Your task to perform on an android device: Go to Reddit.com Image 0: 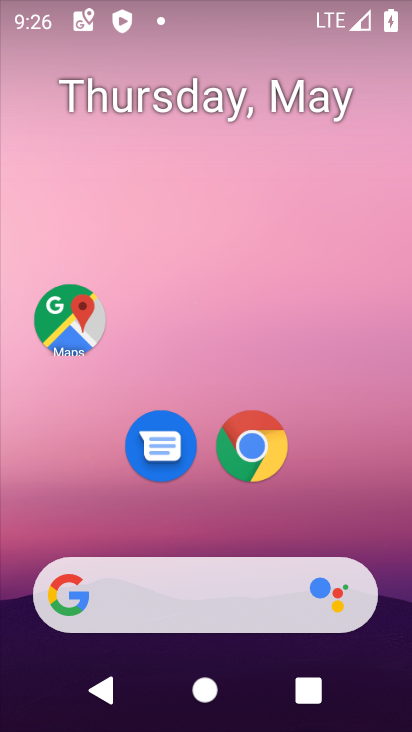
Step 0: click (254, 440)
Your task to perform on an android device: Go to Reddit.com Image 1: 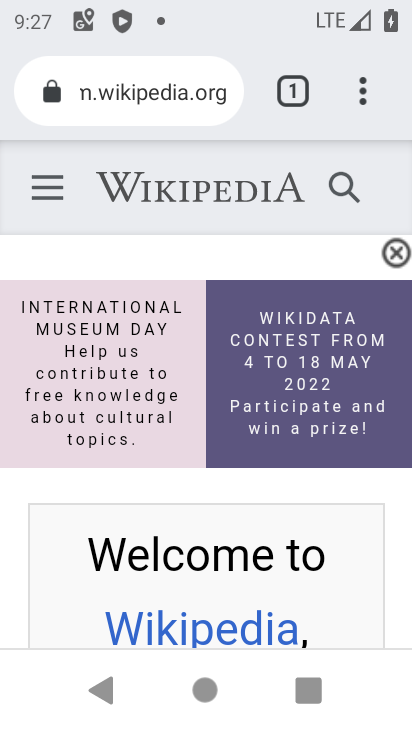
Step 1: click (185, 93)
Your task to perform on an android device: Go to Reddit.com Image 2: 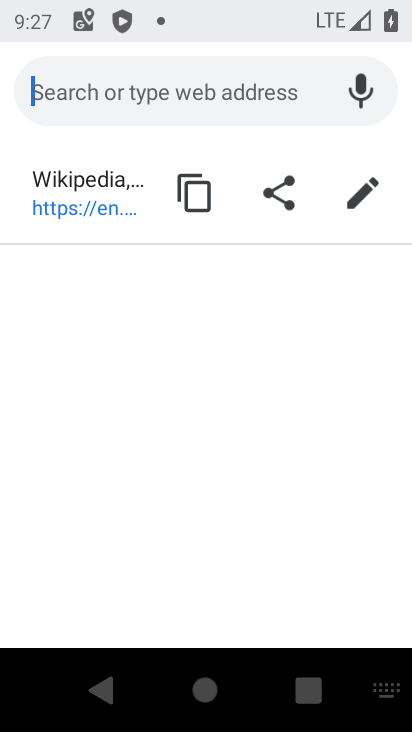
Step 2: type "reddit.com"
Your task to perform on an android device: Go to Reddit.com Image 3: 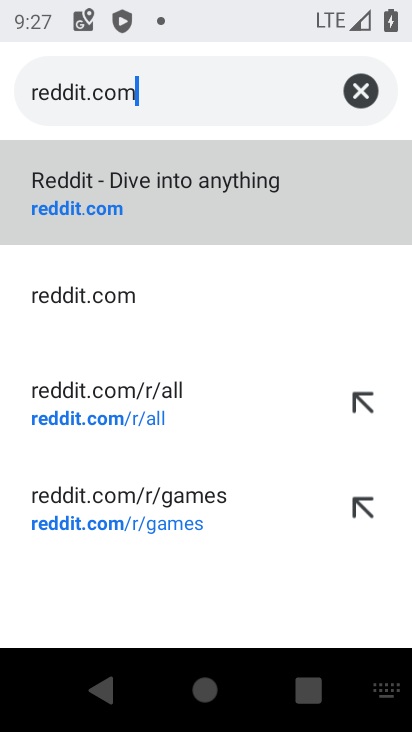
Step 3: click (81, 184)
Your task to perform on an android device: Go to Reddit.com Image 4: 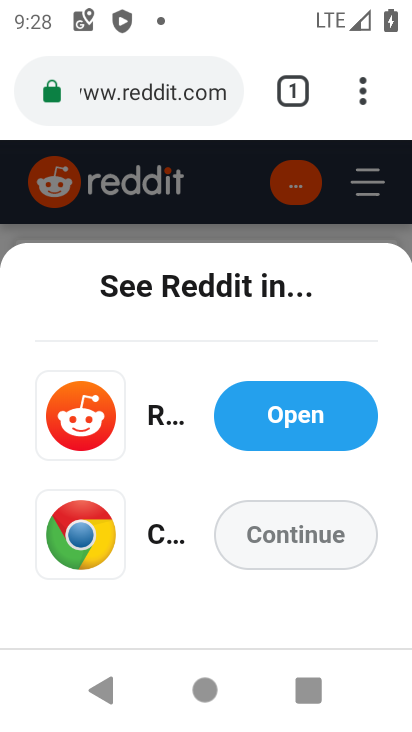
Step 4: task complete